Your task to perform on an android device: turn off notifications settings in the gmail app Image 0: 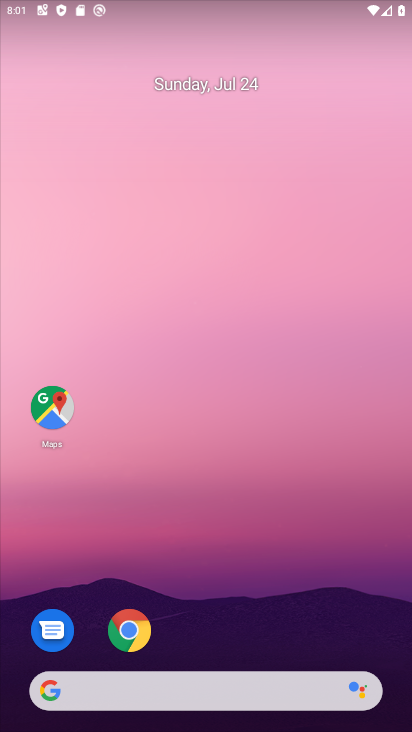
Step 0: drag from (202, 566) to (183, 76)
Your task to perform on an android device: turn off notifications settings in the gmail app Image 1: 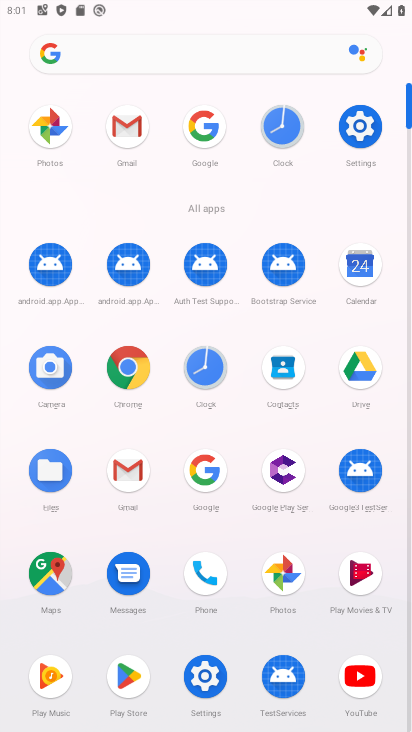
Step 1: click (137, 143)
Your task to perform on an android device: turn off notifications settings in the gmail app Image 2: 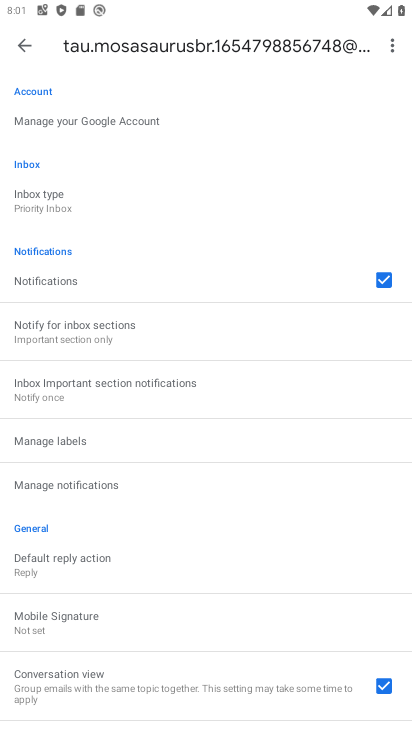
Step 2: click (140, 494)
Your task to perform on an android device: turn off notifications settings in the gmail app Image 3: 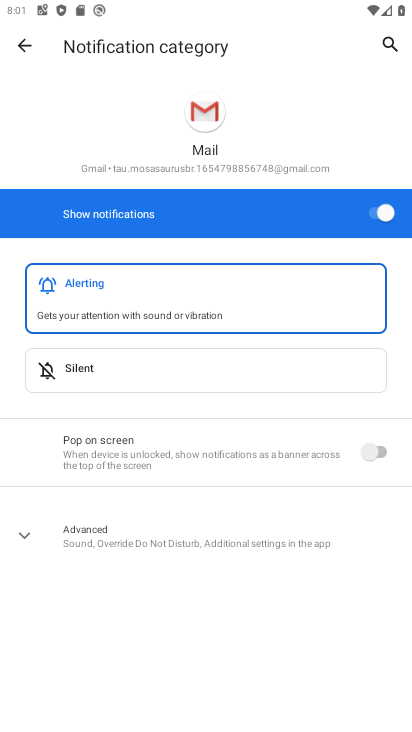
Step 3: click (371, 197)
Your task to perform on an android device: turn off notifications settings in the gmail app Image 4: 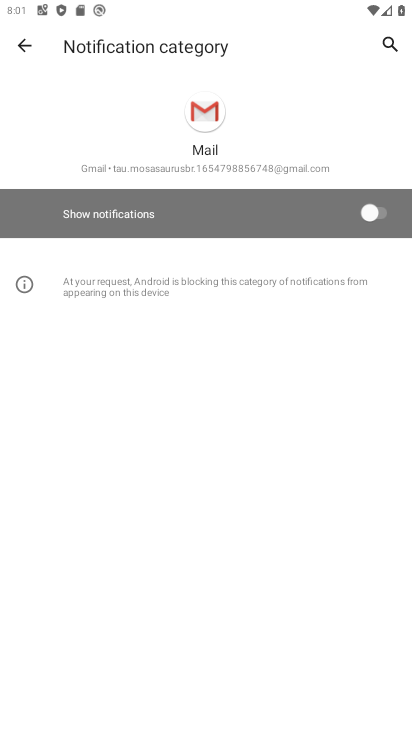
Step 4: task complete